Your task to perform on an android device: turn pop-ups off in chrome Image 0: 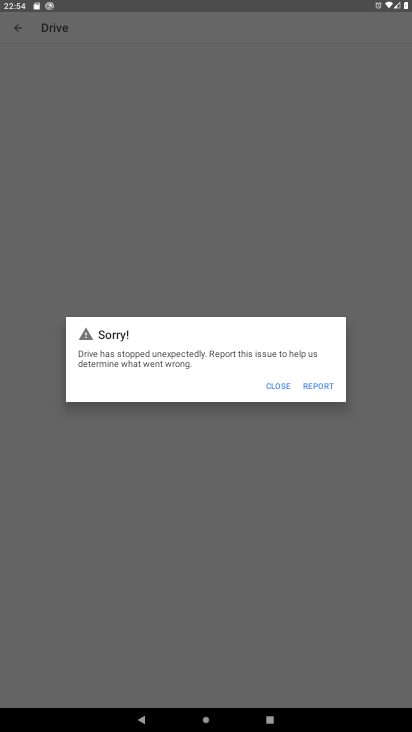
Step 0: press home button
Your task to perform on an android device: turn pop-ups off in chrome Image 1: 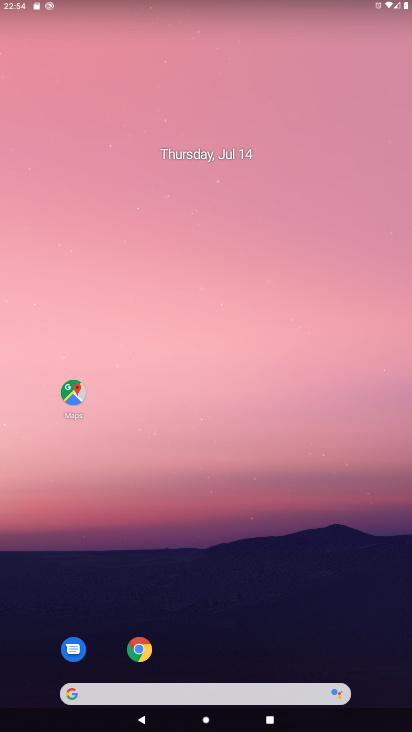
Step 1: click (147, 657)
Your task to perform on an android device: turn pop-ups off in chrome Image 2: 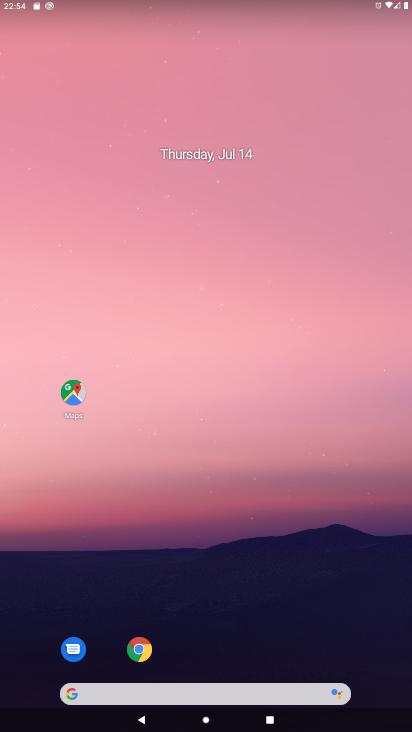
Step 2: click (147, 657)
Your task to perform on an android device: turn pop-ups off in chrome Image 3: 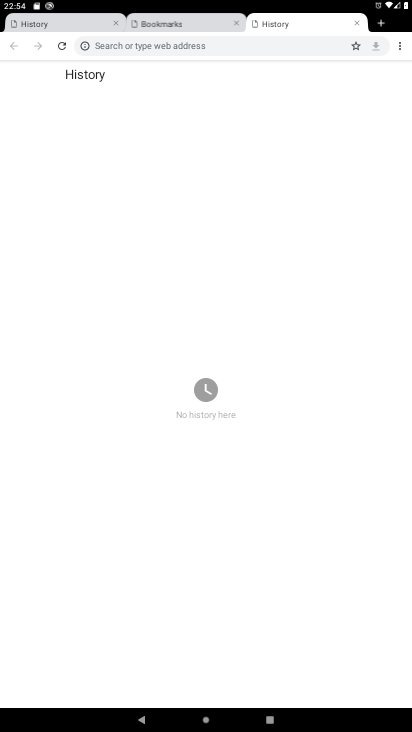
Step 3: click (399, 48)
Your task to perform on an android device: turn pop-ups off in chrome Image 4: 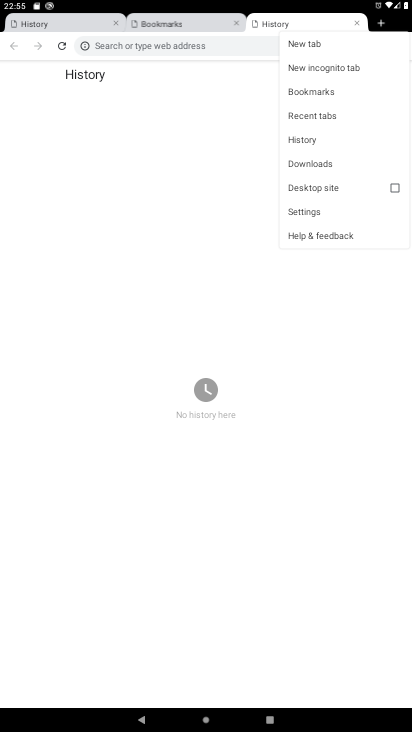
Step 4: click (313, 214)
Your task to perform on an android device: turn pop-ups off in chrome Image 5: 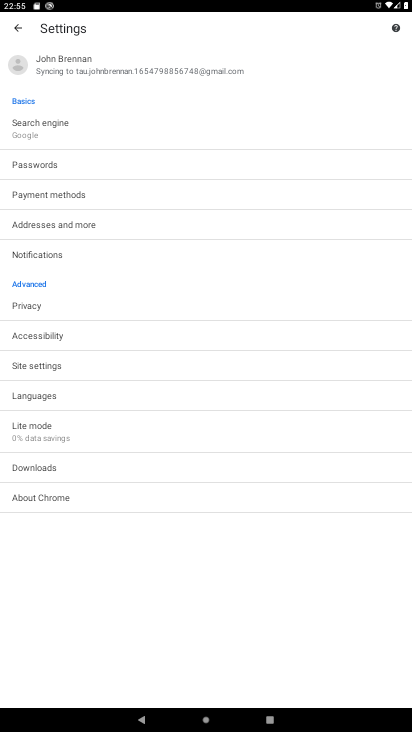
Step 5: click (57, 363)
Your task to perform on an android device: turn pop-ups off in chrome Image 6: 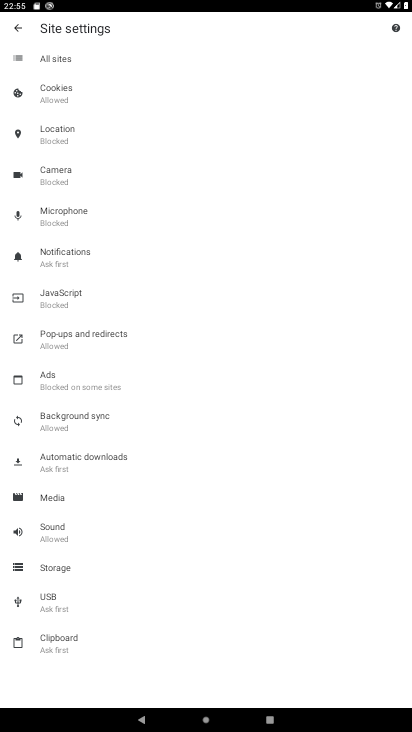
Step 6: click (87, 342)
Your task to perform on an android device: turn pop-ups off in chrome Image 7: 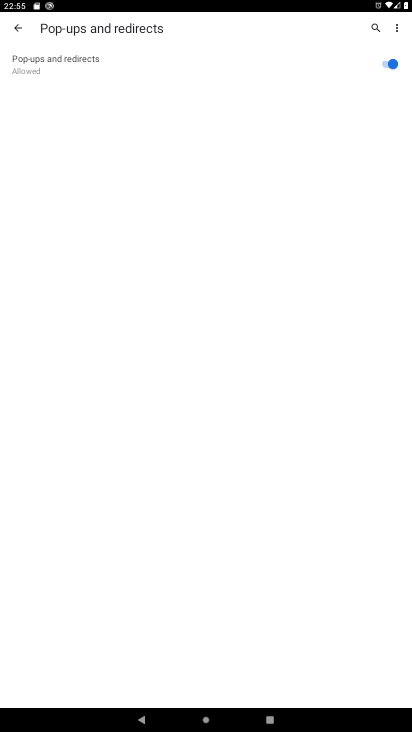
Step 7: click (394, 58)
Your task to perform on an android device: turn pop-ups off in chrome Image 8: 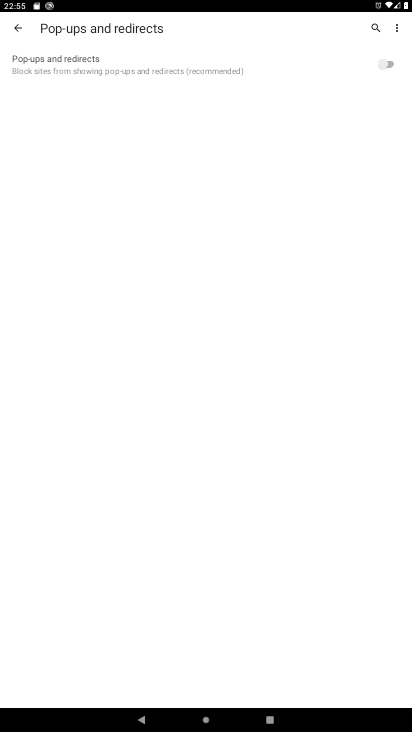
Step 8: task complete